Your task to perform on an android device: turn smart compose on in the gmail app Image 0: 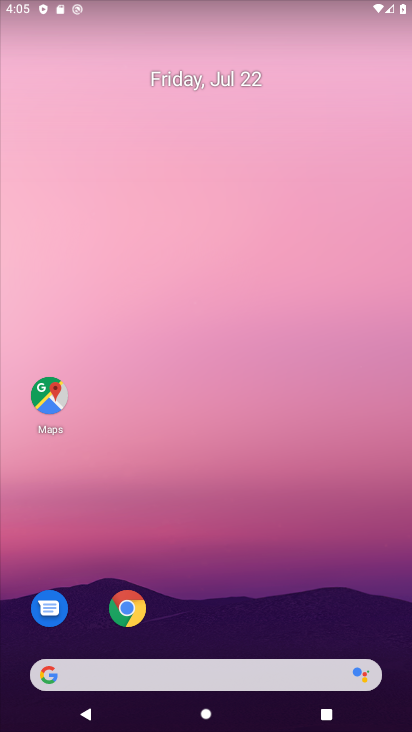
Step 0: press home button
Your task to perform on an android device: turn smart compose on in the gmail app Image 1: 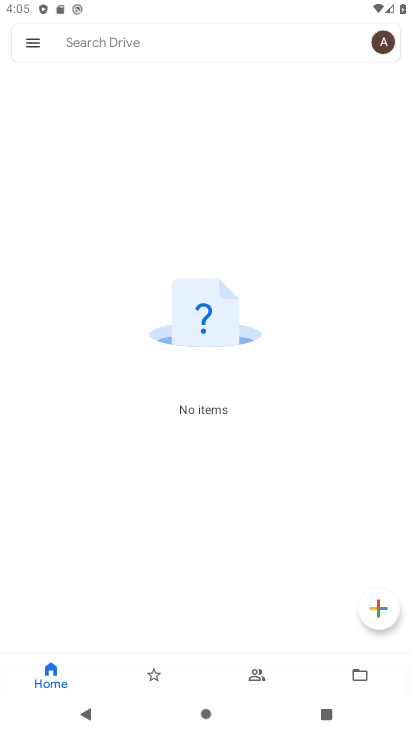
Step 1: press home button
Your task to perform on an android device: turn smart compose on in the gmail app Image 2: 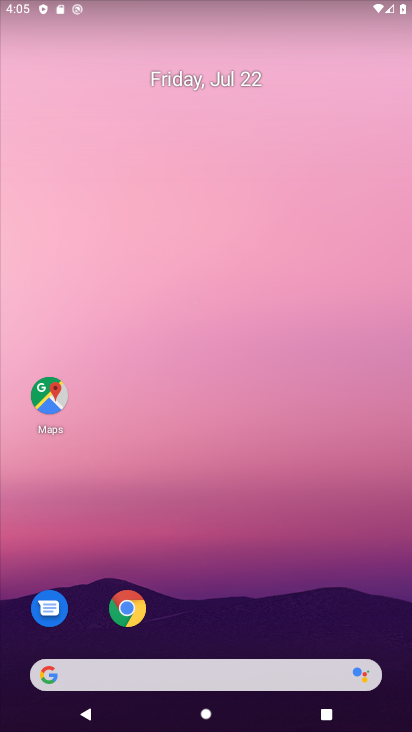
Step 2: drag from (243, 596) to (223, 86)
Your task to perform on an android device: turn smart compose on in the gmail app Image 3: 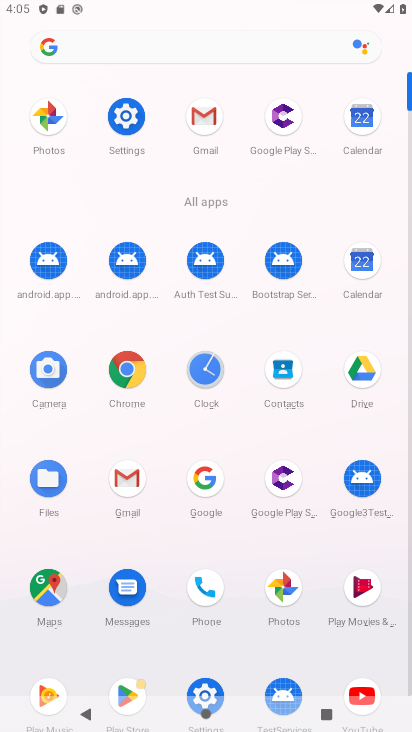
Step 3: click (197, 123)
Your task to perform on an android device: turn smart compose on in the gmail app Image 4: 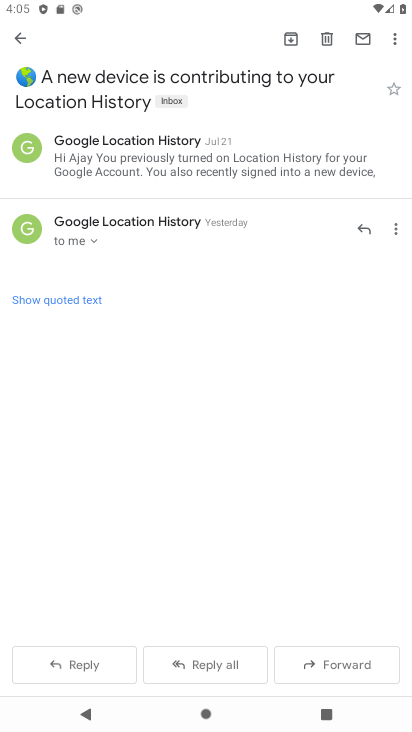
Step 4: click (18, 39)
Your task to perform on an android device: turn smart compose on in the gmail app Image 5: 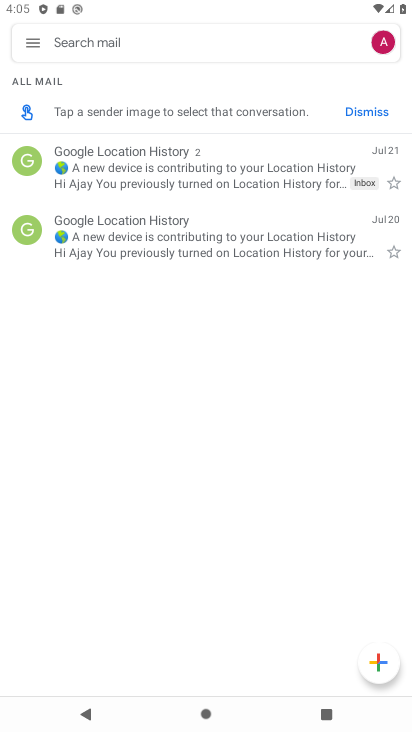
Step 5: click (35, 44)
Your task to perform on an android device: turn smart compose on in the gmail app Image 6: 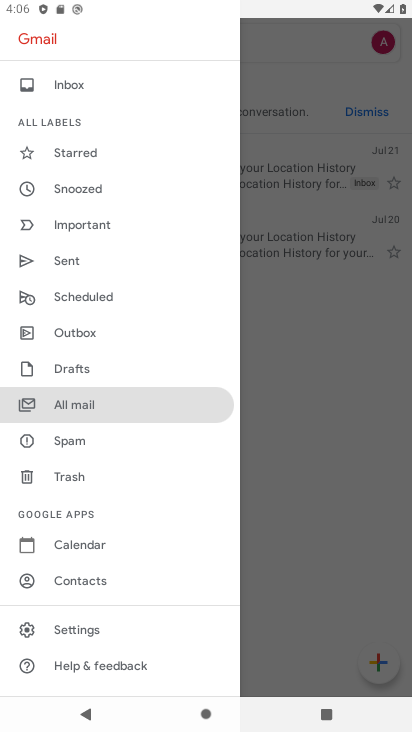
Step 6: click (87, 626)
Your task to perform on an android device: turn smart compose on in the gmail app Image 7: 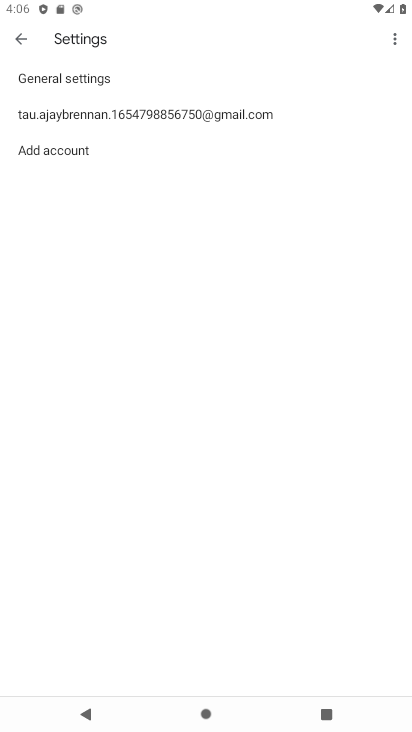
Step 7: click (159, 116)
Your task to perform on an android device: turn smart compose on in the gmail app Image 8: 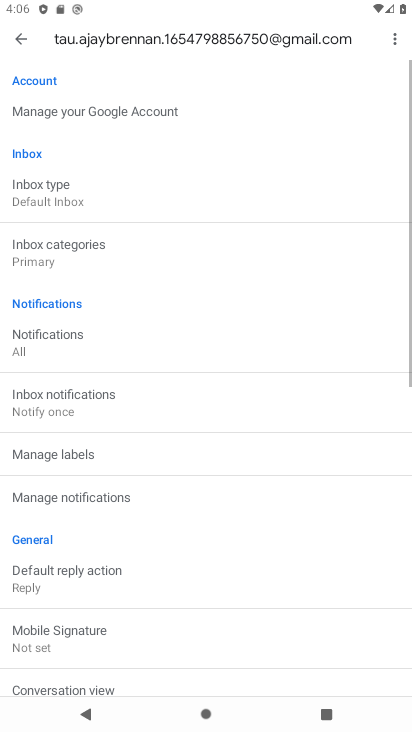
Step 8: task complete